Your task to perform on an android device: open a new tab in the chrome app Image 0: 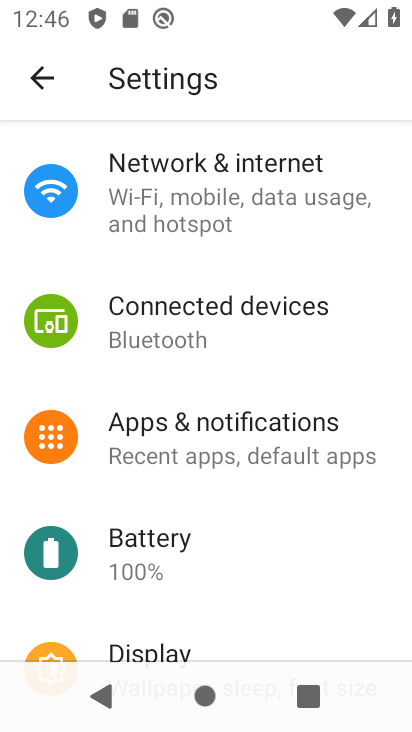
Step 0: press back button
Your task to perform on an android device: open a new tab in the chrome app Image 1: 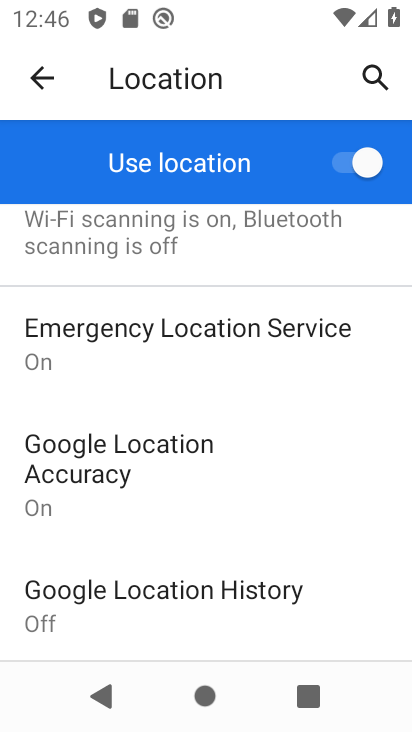
Step 1: press back button
Your task to perform on an android device: open a new tab in the chrome app Image 2: 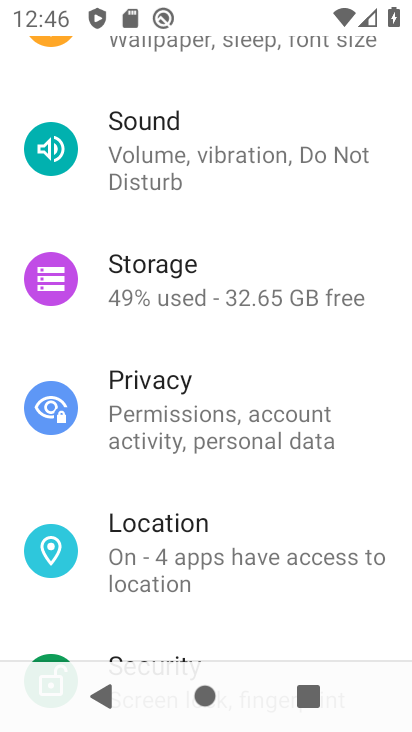
Step 2: press back button
Your task to perform on an android device: open a new tab in the chrome app Image 3: 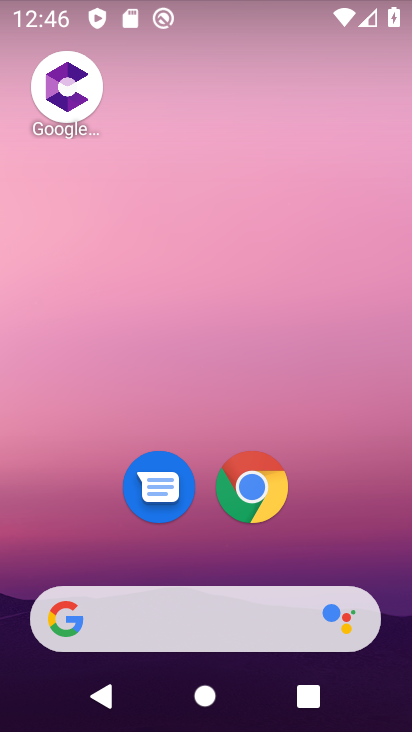
Step 3: click (270, 484)
Your task to perform on an android device: open a new tab in the chrome app Image 4: 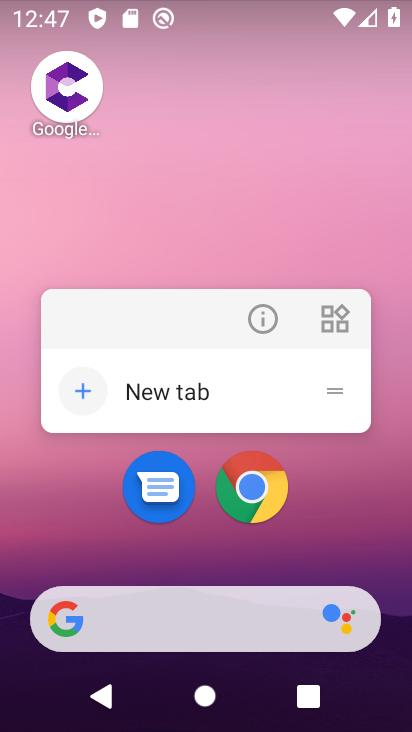
Step 4: click (269, 488)
Your task to perform on an android device: open a new tab in the chrome app Image 5: 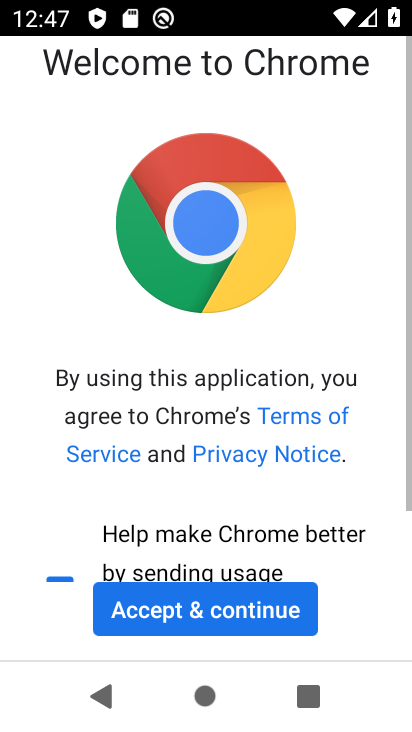
Step 5: click (173, 628)
Your task to perform on an android device: open a new tab in the chrome app Image 6: 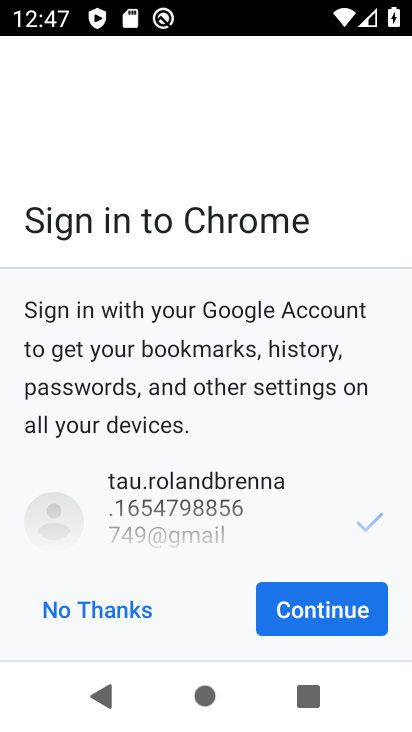
Step 6: click (316, 598)
Your task to perform on an android device: open a new tab in the chrome app Image 7: 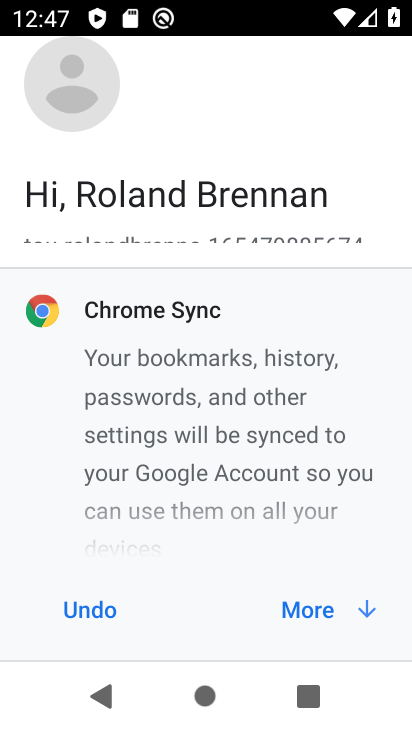
Step 7: click (327, 614)
Your task to perform on an android device: open a new tab in the chrome app Image 8: 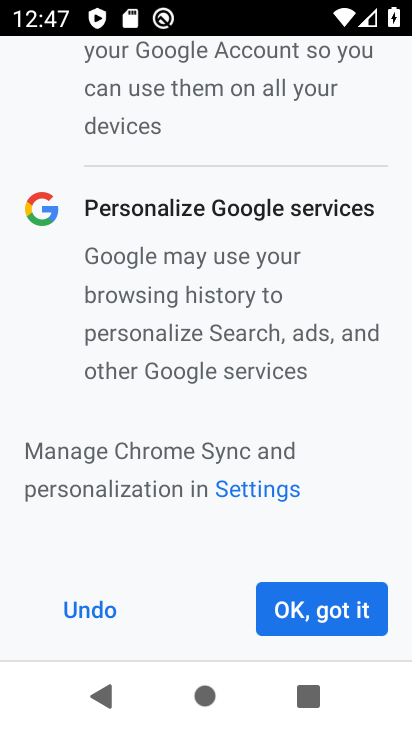
Step 8: click (319, 615)
Your task to perform on an android device: open a new tab in the chrome app Image 9: 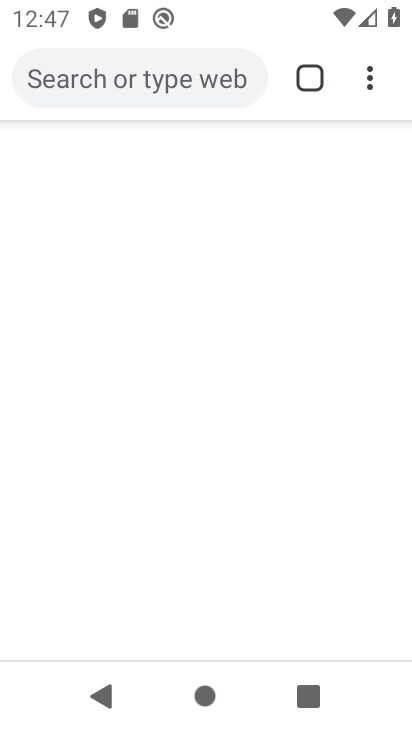
Step 9: click (301, 79)
Your task to perform on an android device: open a new tab in the chrome app Image 10: 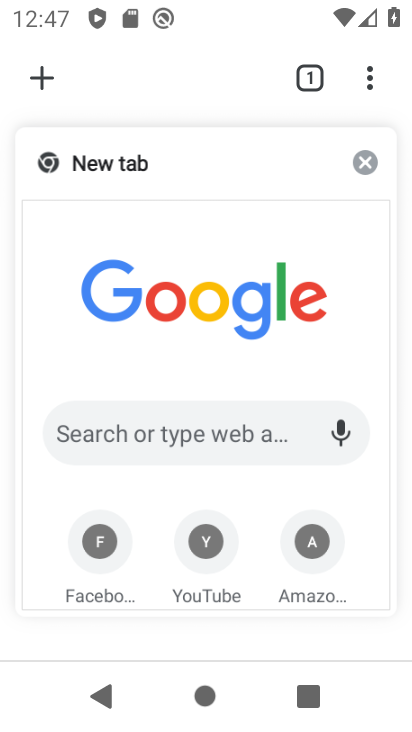
Step 10: click (130, 156)
Your task to perform on an android device: open a new tab in the chrome app Image 11: 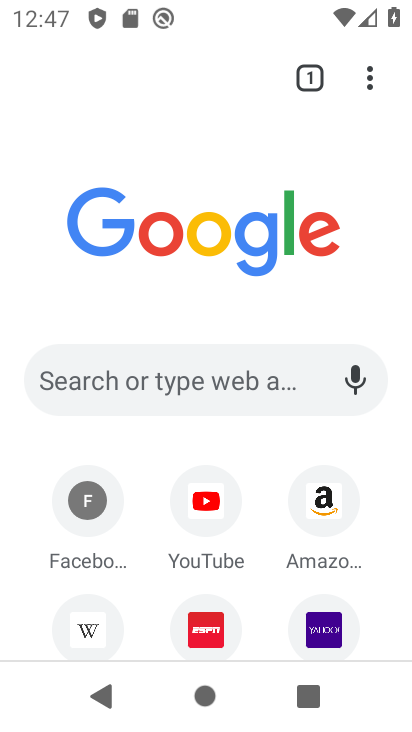
Step 11: task complete